Your task to perform on an android device: turn off picture-in-picture Image 0: 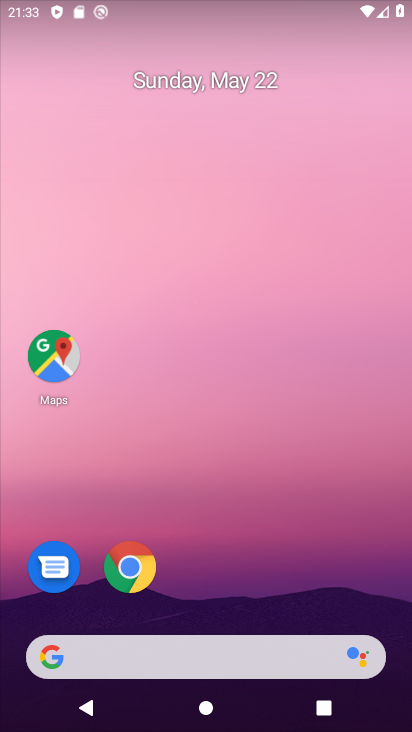
Step 0: click (131, 571)
Your task to perform on an android device: turn off picture-in-picture Image 1: 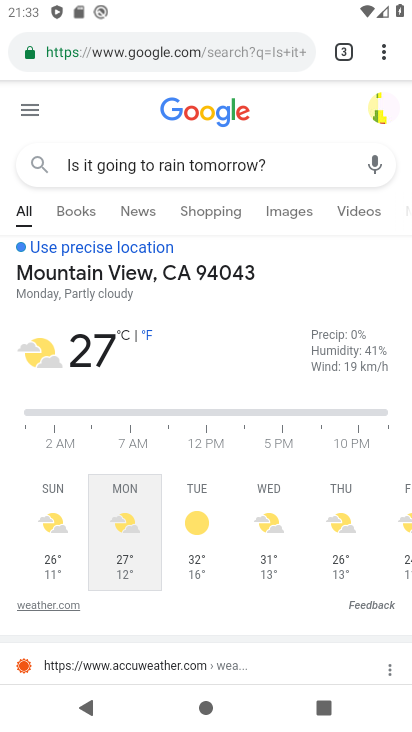
Step 1: click (381, 39)
Your task to perform on an android device: turn off picture-in-picture Image 2: 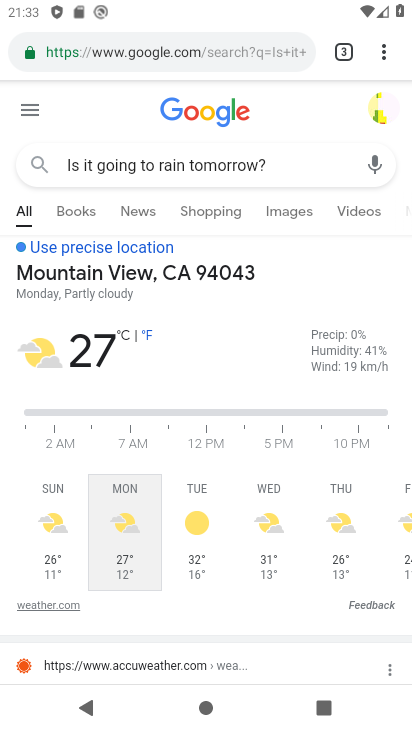
Step 2: click (372, 29)
Your task to perform on an android device: turn off picture-in-picture Image 3: 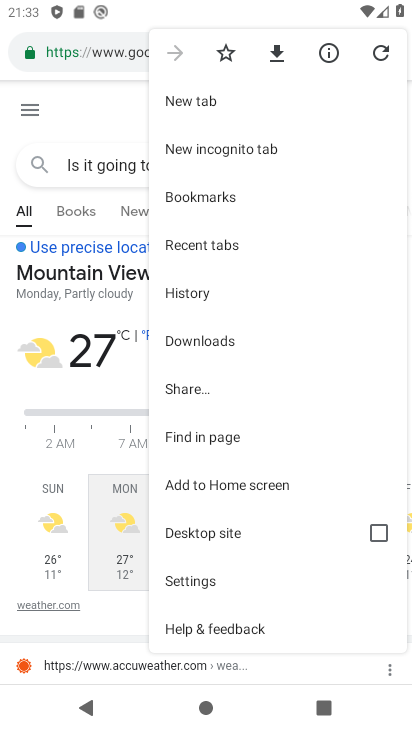
Step 3: click (217, 583)
Your task to perform on an android device: turn off picture-in-picture Image 4: 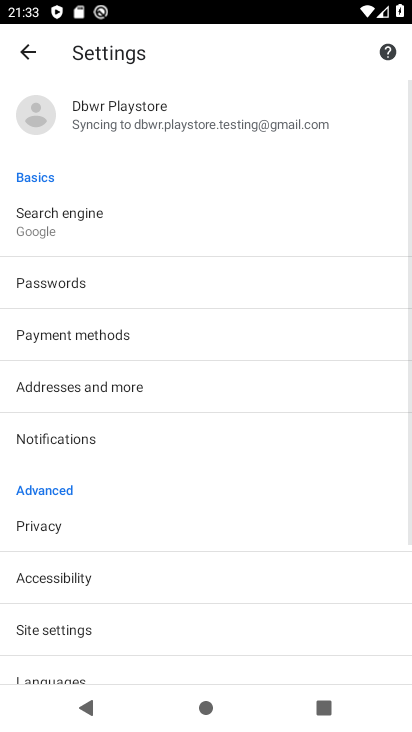
Step 4: drag from (162, 627) to (158, 548)
Your task to perform on an android device: turn off picture-in-picture Image 5: 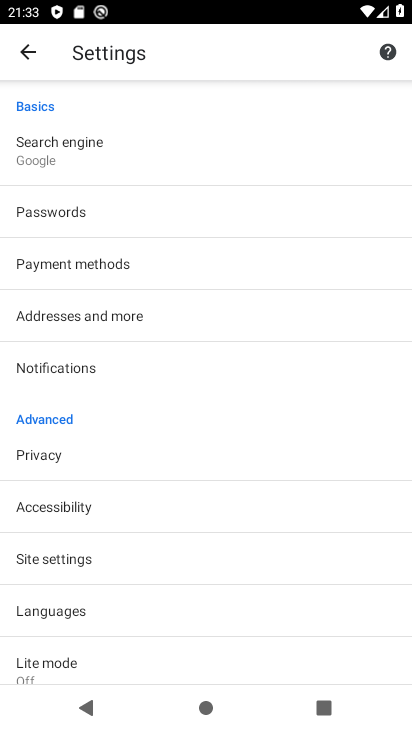
Step 5: click (102, 552)
Your task to perform on an android device: turn off picture-in-picture Image 6: 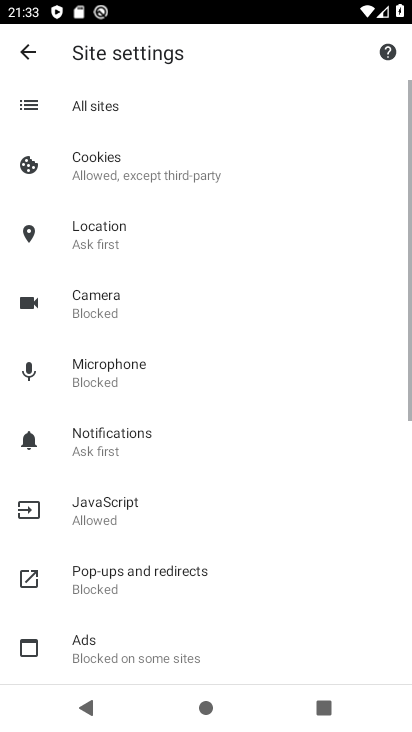
Step 6: press home button
Your task to perform on an android device: turn off picture-in-picture Image 7: 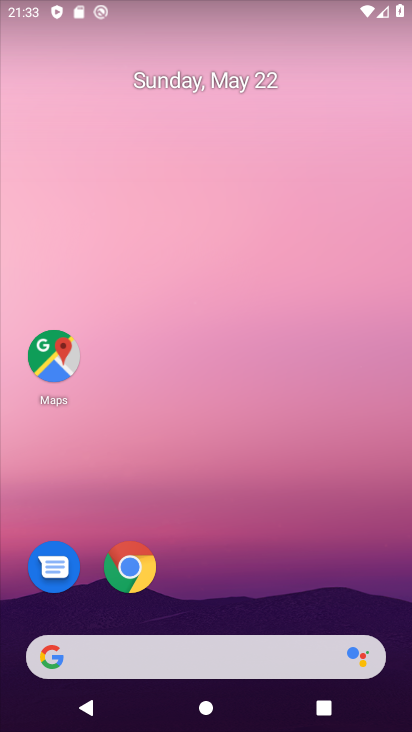
Step 7: drag from (199, 575) to (222, 261)
Your task to perform on an android device: turn off picture-in-picture Image 8: 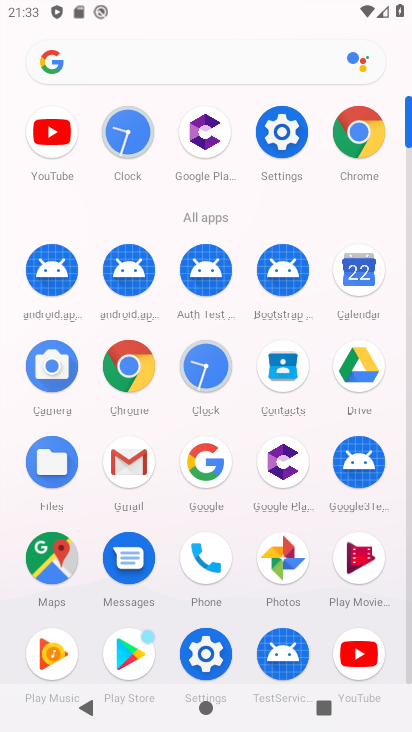
Step 8: click (282, 122)
Your task to perform on an android device: turn off picture-in-picture Image 9: 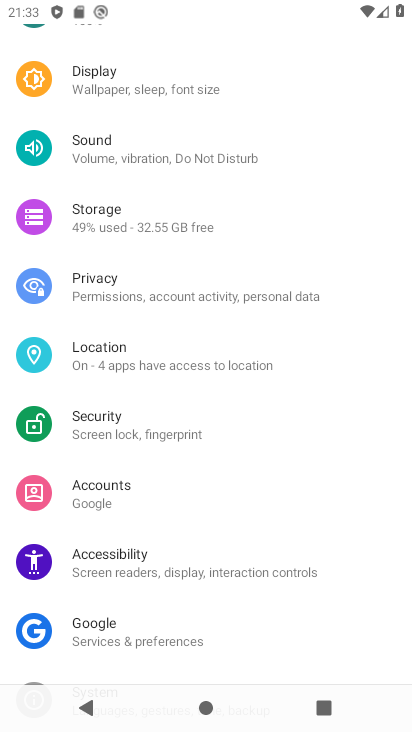
Step 9: drag from (197, 599) to (264, 255)
Your task to perform on an android device: turn off picture-in-picture Image 10: 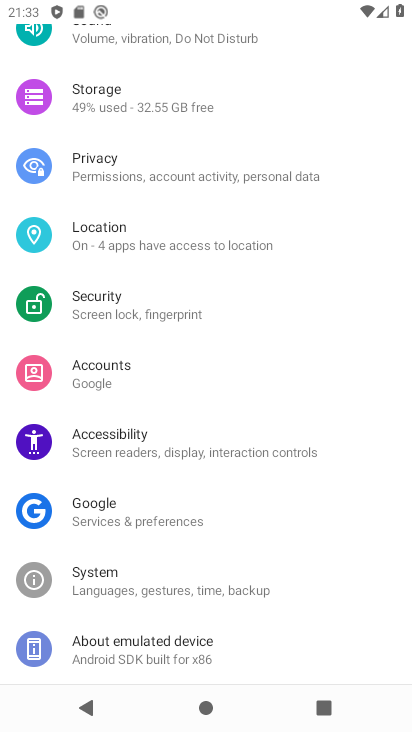
Step 10: click (184, 641)
Your task to perform on an android device: turn off picture-in-picture Image 11: 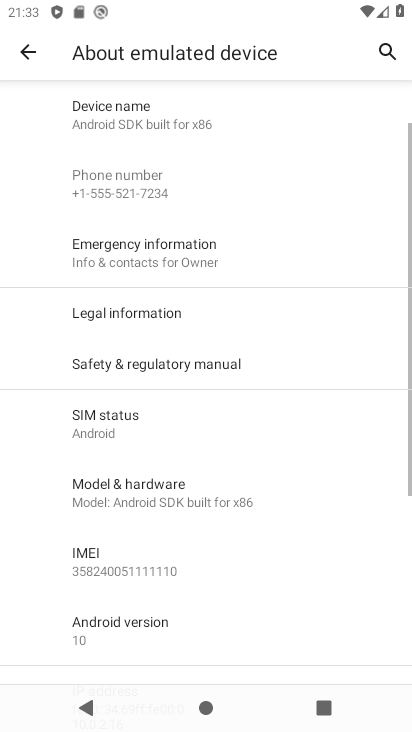
Step 11: press back button
Your task to perform on an android device: turn off picture-in-picture Image 12: 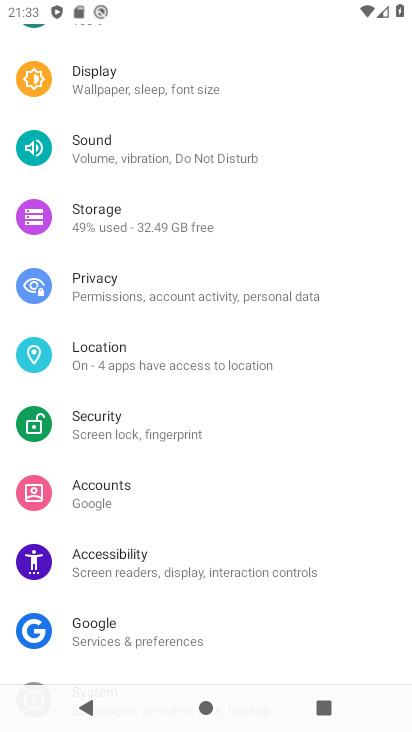
Step 12: drag from (262, 158) to (242, 670)
Your task to perform on an android device: turn off picture-in-picture Image 13: 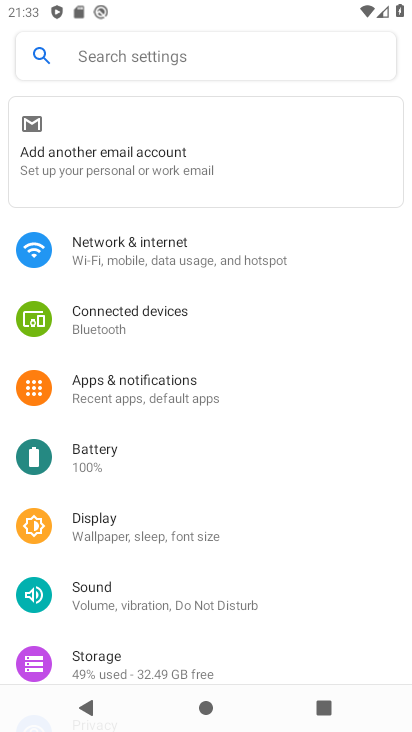
Step 13: drag from (217, 112) to (222, 544)
Your task to perform on an android device: turn off picture-in-picture Image 14: 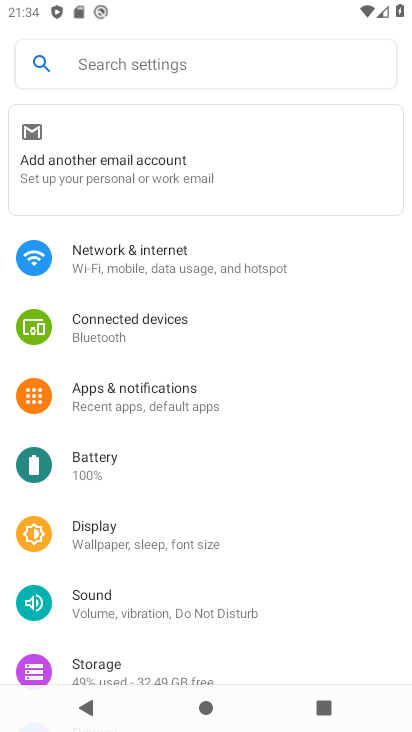
Step 14: click (207, 257)
Your task to perform on an android device: turn off picture-in-picture Image 15: 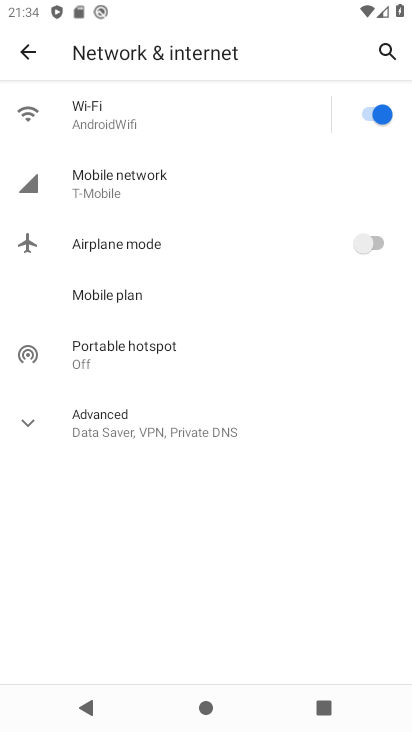
Step 15: press back button
Your task to perform on an android device: turn off picture-in-picture Image 16: 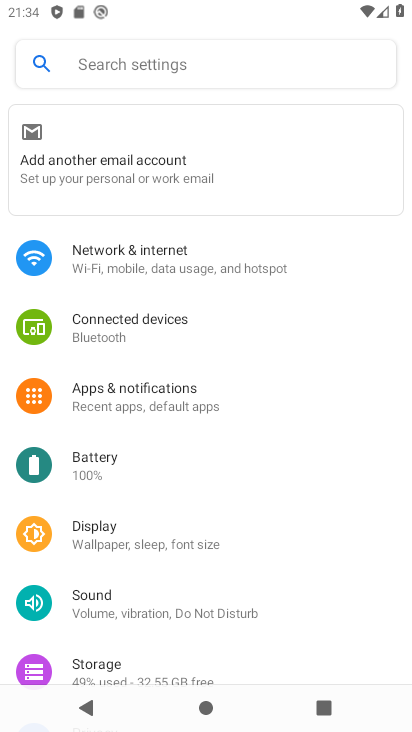
Step 16: click (163, 391)
Your task to perform on an android device: turn off picture-in-picture Image 17: 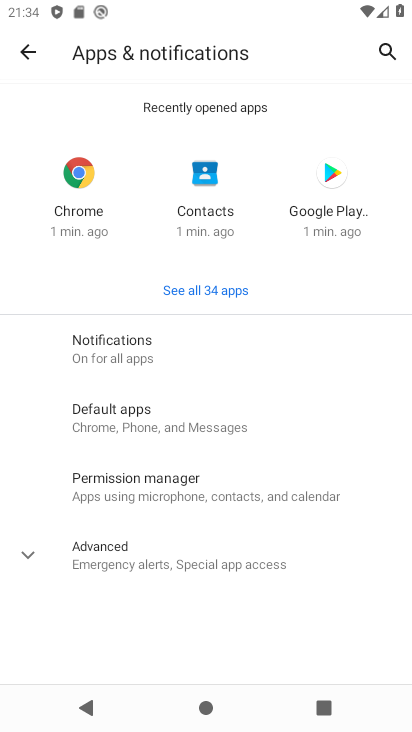
Step 17: click (129, 546)
Your task to perform on an android device: turn off picture-in-picture Image 18: 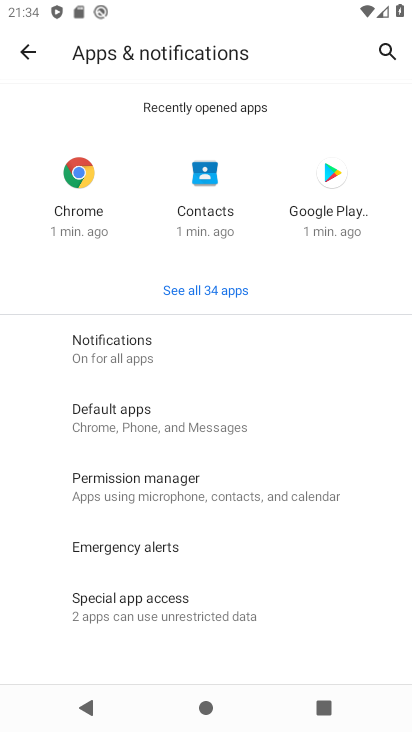
Step 18: click (193, 599)
Your task to perform on an android device: turn off picture-in-picture Image 19: 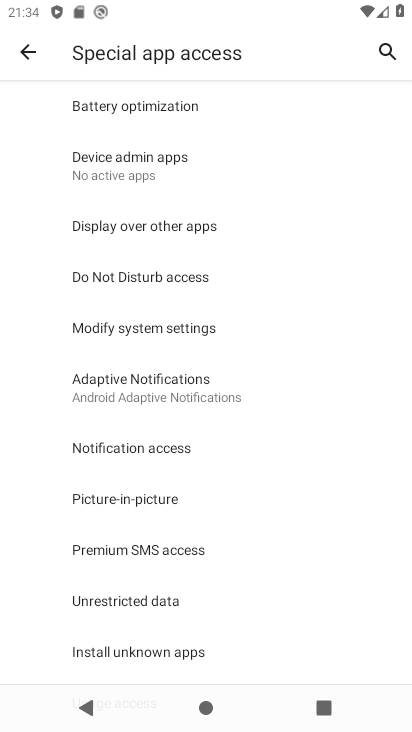
Step 19: click (178, 500)
Your task to perform on an android device: turn off picture-in-picture Image 20: 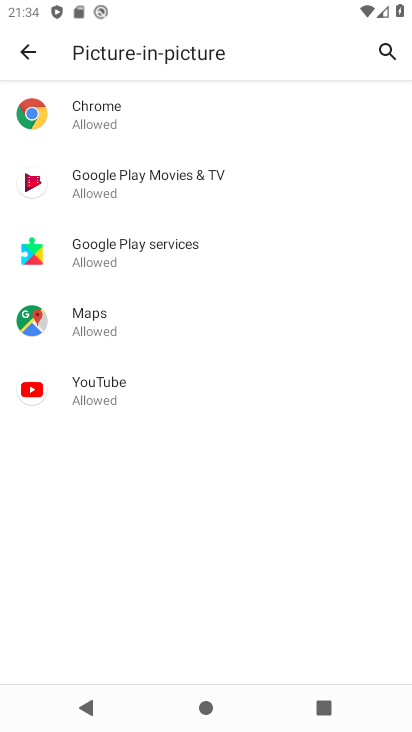
Step 20: click (202, 389)
Your task to perform on an android device: turn off picture-in-picture Image 21: 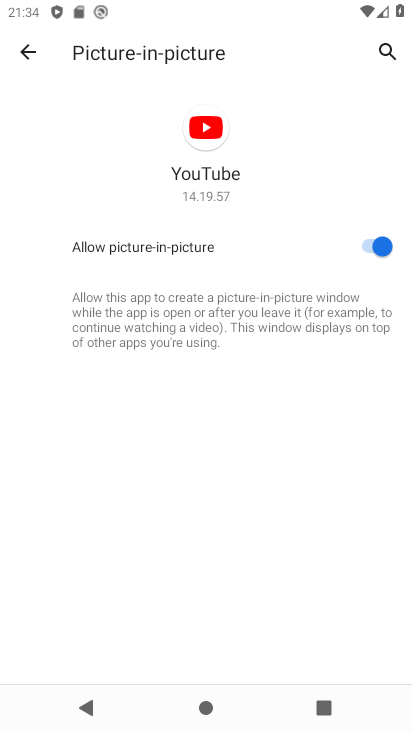
Step 21: click (375, 237)
Your task to perform on an android device: turn off picture-in-picture Image 22: 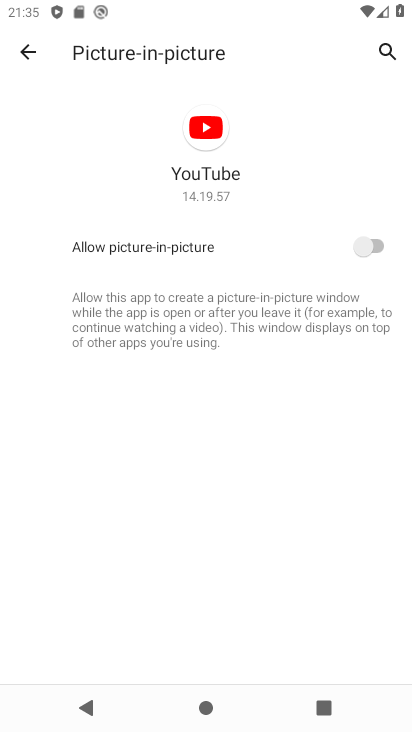
Step 22: task complete